Your task to perform on an android device: turn pop-ups on in chrome Image 0: 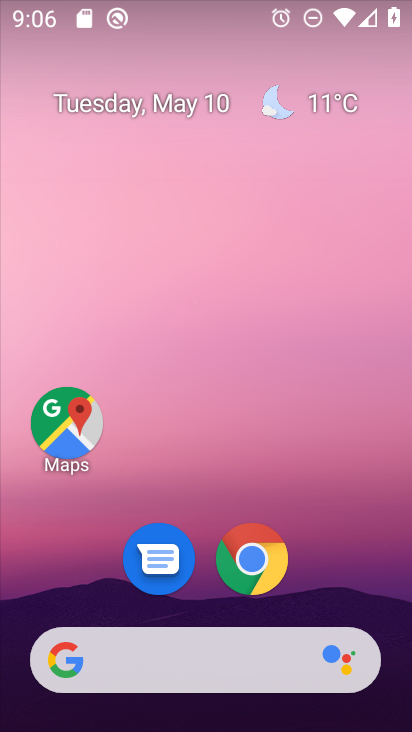
Step 0: click (250, 559)
Your task to perform on an android device: turn pop-ups on in chrome Image 1: 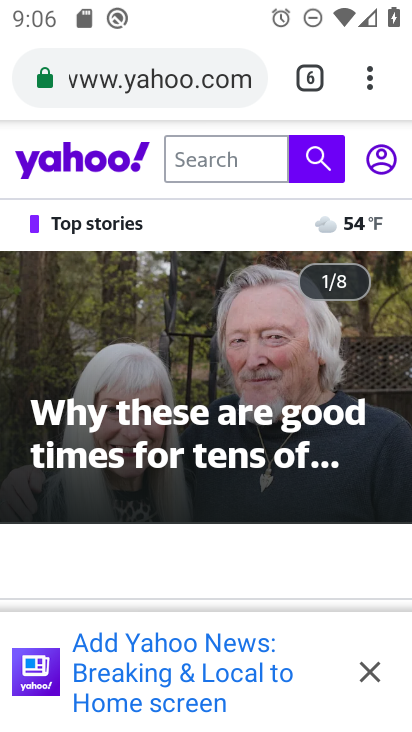
Step 1: click (367, 80)
Your task to perform on an android device: turn pop-ups on in chrome Image 2: 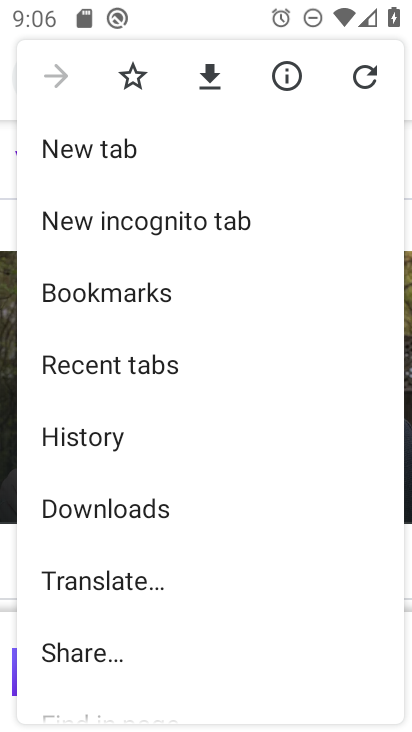
Step 2: drag from (90, 612) to (103, 225)
Your task to perform on an android device: turn pop-ups on in chrome Image 3: 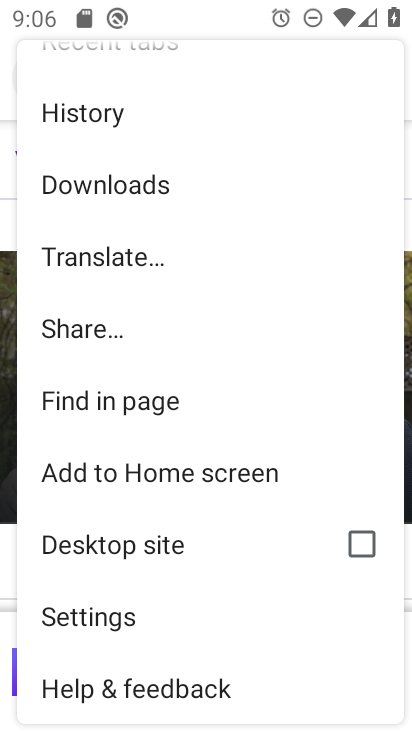
Step 3: click (105, 620)
Your task to perform on an android device: turn pop-ups on in chrome Image 4: 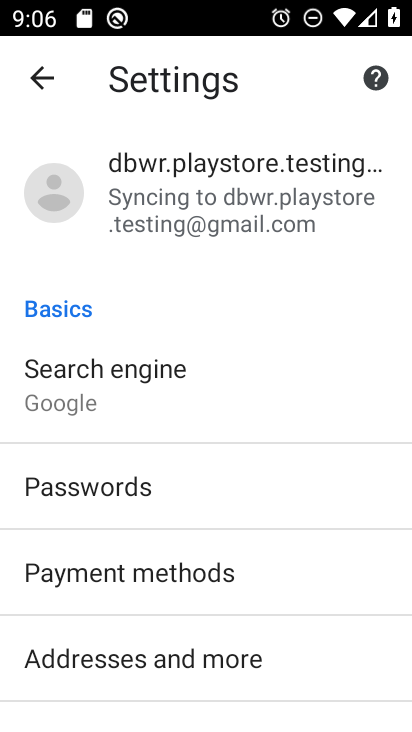
Step 4: drag from (154, 684) to (176, 284)
Your task to perform on an android device: turn pop-ups on in chrome Image 5: 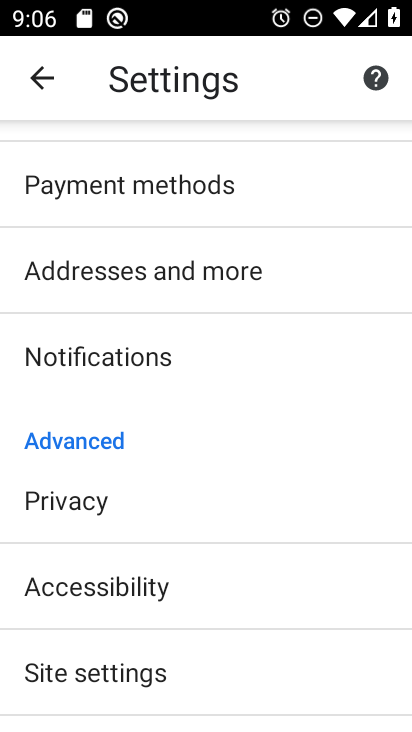
Step 5: drag from (138, 702) to (142, 364)
Your task to perform on an android device: turn pop-ups on in chrome Image 6: 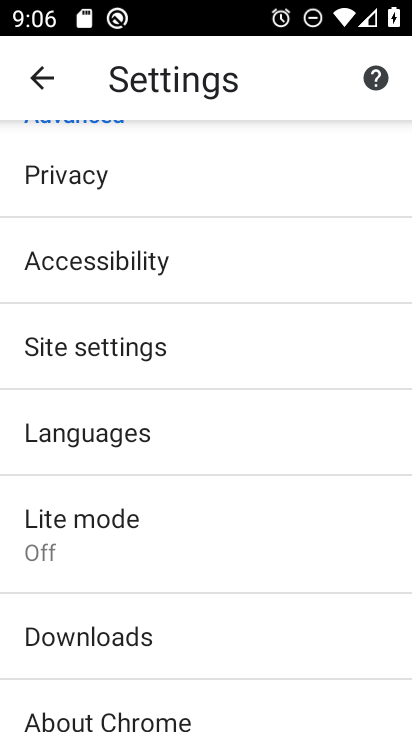
Step 6: click (133, 338)
Your task to perform on an android device: turn pop-ups on in chrome Image 7: 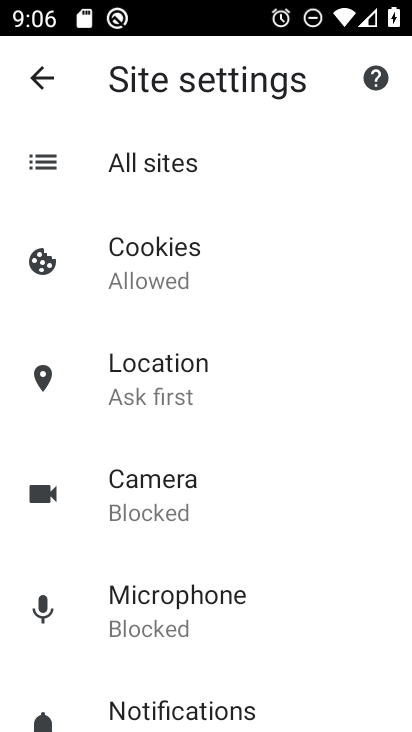
Step 7: drag from (142, 681) to (158, 268)
Your task to perform on an android device: turn pop-ups on in chrome Image 8: 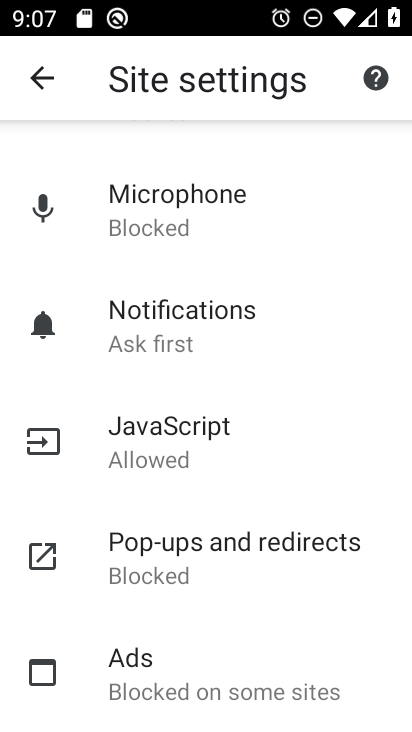
Step 8: click (162, 547)
Your task to perform on an android device: turn pop-ups on in chrome Image 9: 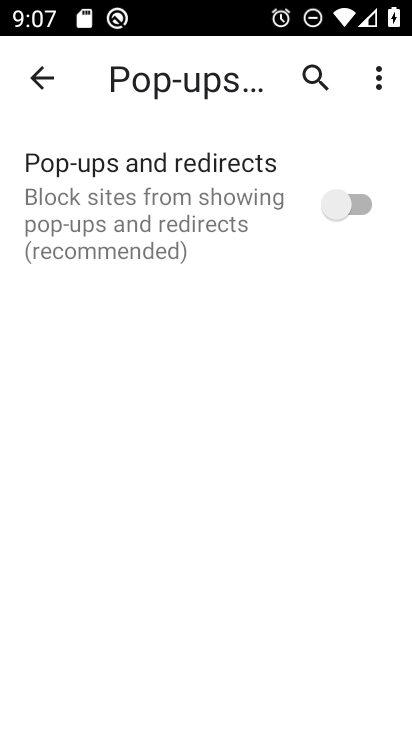
Step 9: click (363, 206)
Your task to perform on an android device: turn pop-ups on in chrome Image 10: 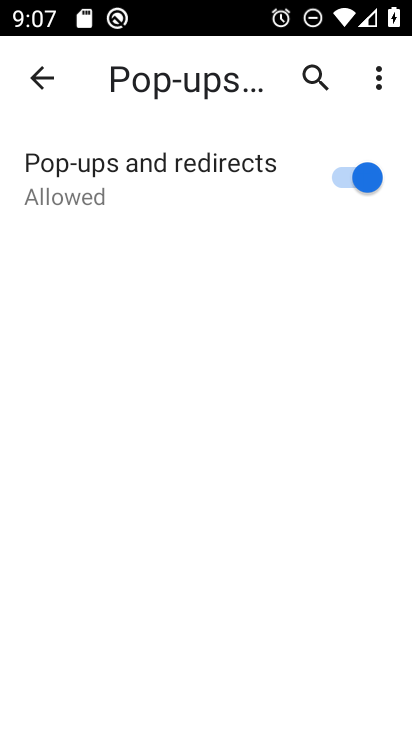
Step 10: task complete